Your task to perform on an android device: toggle javascript in the chrome app Image 0: 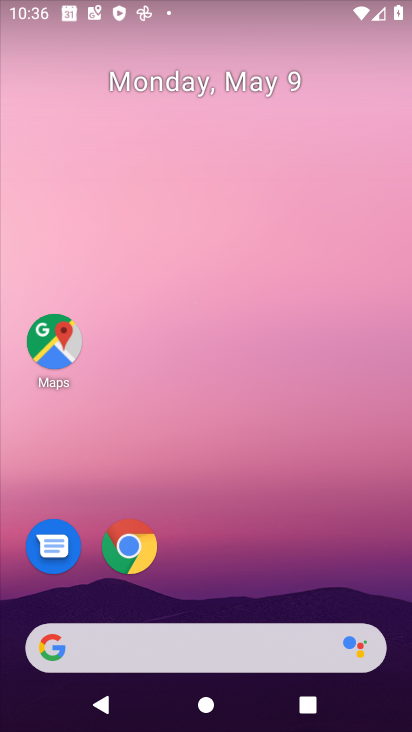
Step 0: click (129, 560)
Your task to perform on an android device: toggle javascript in the chrome app Image 1: 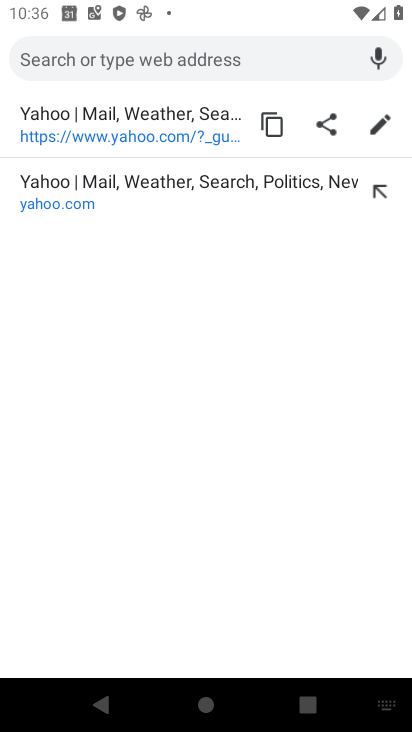
Step 1: click (103, 708)
Your task to perform on an android device: toggle javascript in the chrome app Image 2: 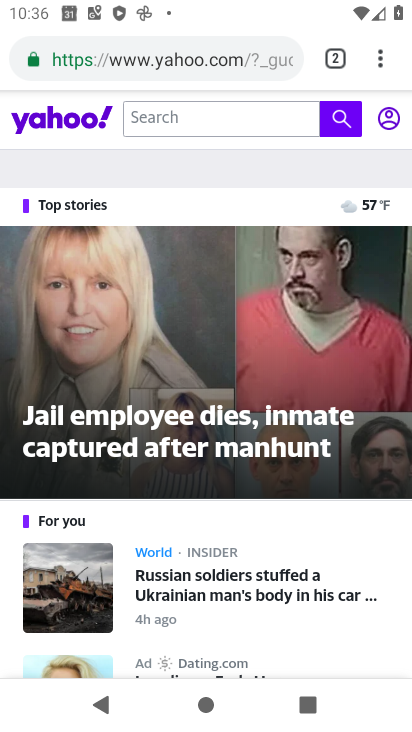
Step 2: click (375, 50)
Your task to perform on an android device: toggle javascript in the chrome app Image 3: 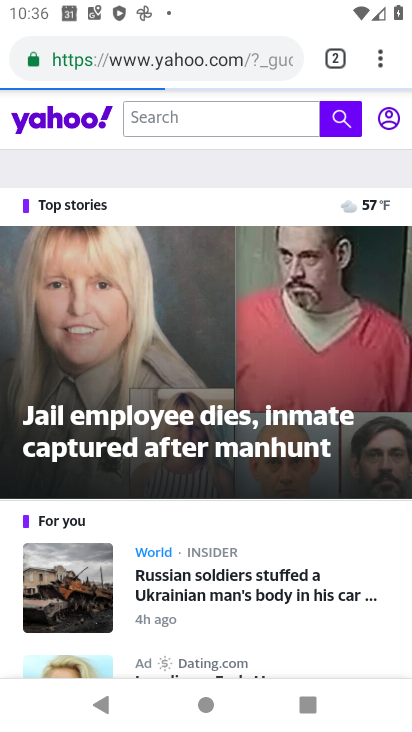
Step 3: click (379, 56)
Your task to perform on an android device: toggle javascript in the chrome app Image 4: 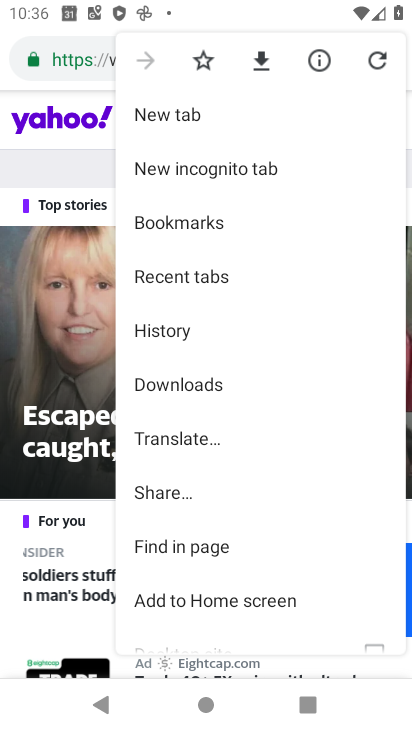
Step 4: drag from (268, 600) to (274, 217)
Your task to perform on an android device: toggle javascript in the chrome app Image 5: 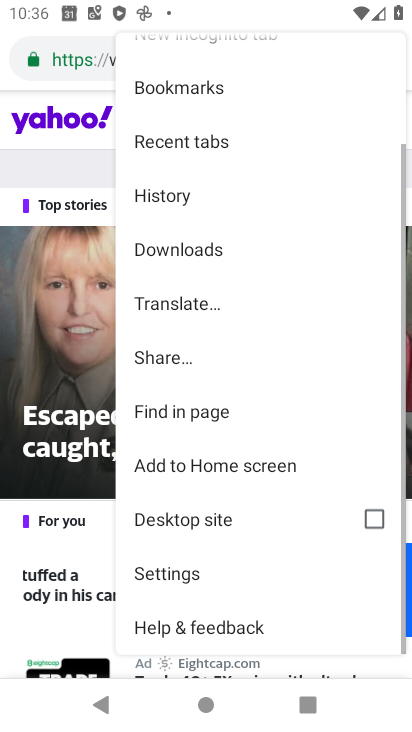
Step 5: click (196, 579)
Your task to perform on an android device: toggle javascript in the chrome app Image 6: 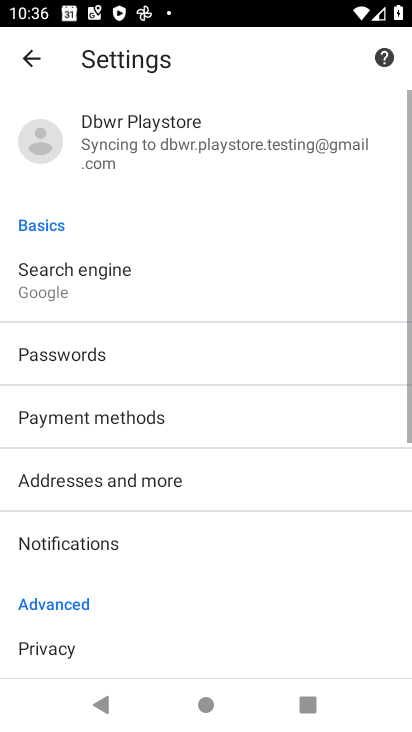
Step 6: drag from (205, 603) to (265, 14)
Your task to perform on an android device: toggle javascript in the chrome app Image 7: 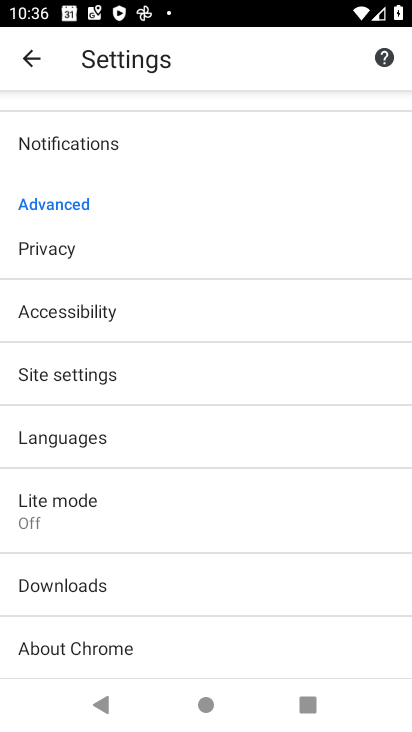
Step 7: click (97, 377)
Your task to perform on an android device: toggle javascript in the chrome app Image 8: 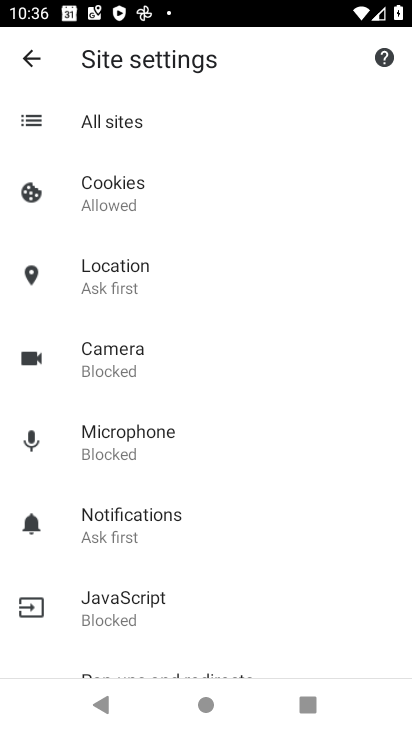
Step 8: click (181, 593)
Your task to perform on an android device: toggle javascript in the chrome app Image 9: 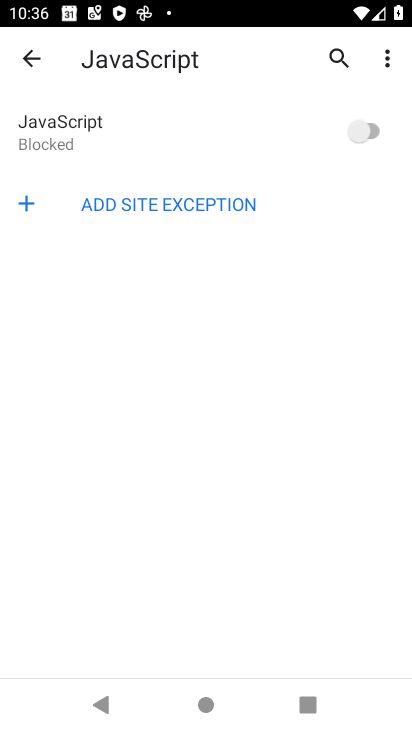
Step 9: click (385, 118)
Your task to perform on an android device: toggle javascript in the chrome app Image 10: 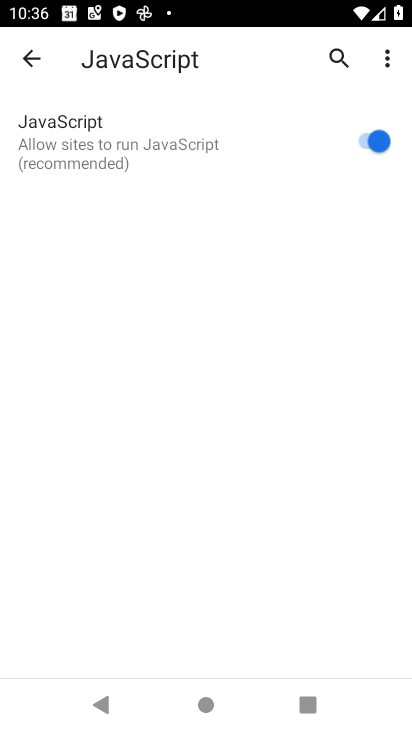
Step 10: task complete